Your task to perform on an android device: turn notification dots off Image 0: 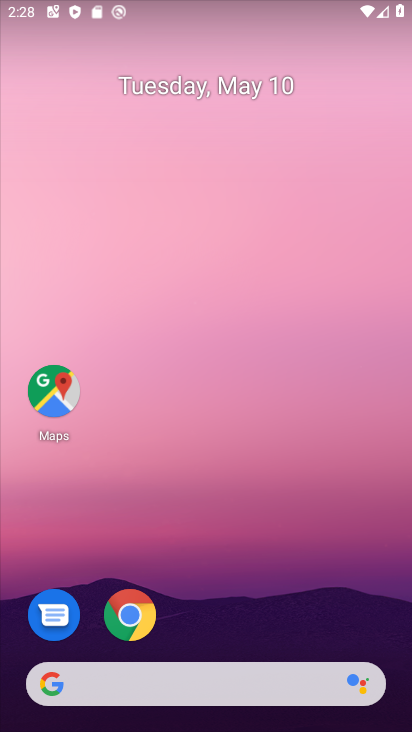
Step 0: drag from (211, 608) to (215, 82)
Your task to perform on an android device: turn notification dots off Image 1: 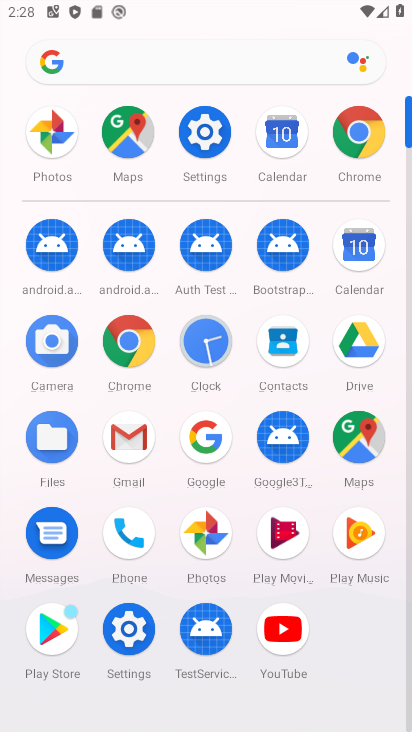
Step 1: click (195, 125)
Your task to perform on an android device: turn notification dots off Image 2: 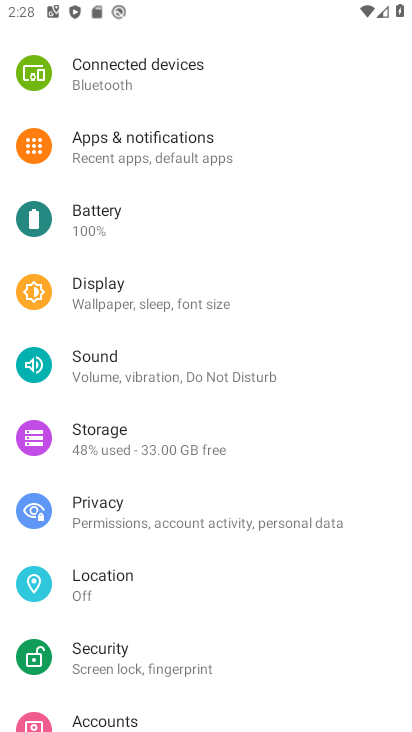
Step 2: click (153, 140)
Your task to perform on an android device: turn notification dots off Image 3: 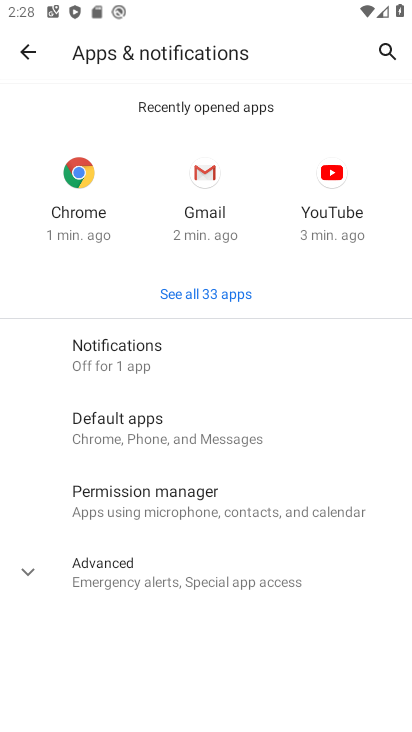
Step 3: click (118, 354)
Your task to perform on an android device: turn notification dots off Image 4: 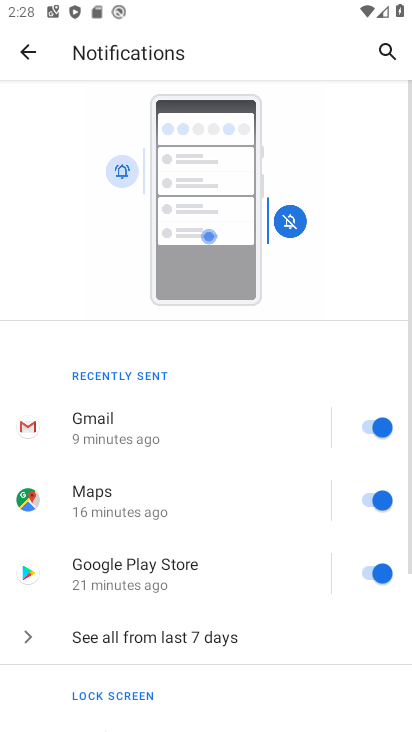
Step 4: drag from (272, 640) to (285, 157)
Your task to perform on an android device: turn notification dots off Image 5: 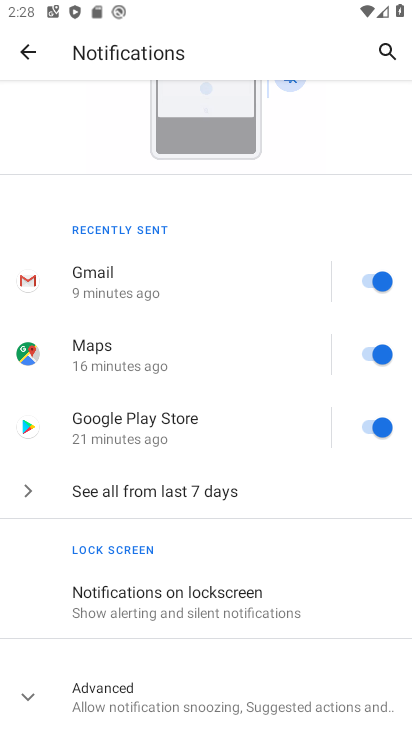
Step 5: click (73, 688)
Your task to perform on an android device: turn notification dots off Image 6: 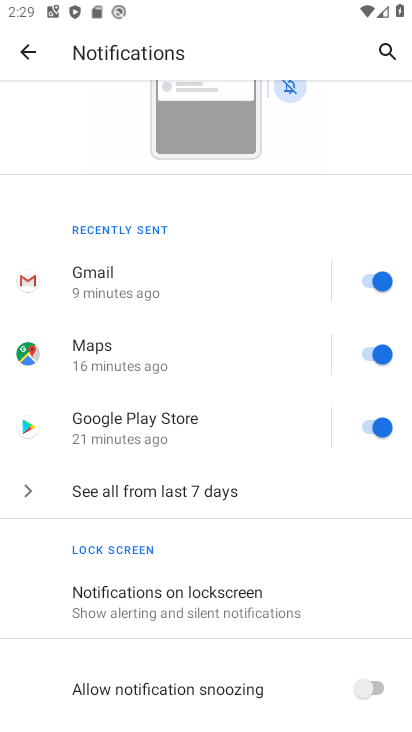
Step 6: drag from (216, 638) to (264, 202)
Your task to perform on an android device: turn notification dots off Image 7: 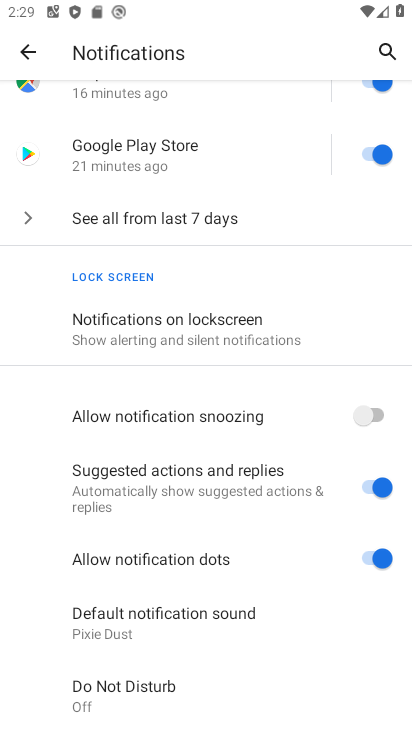
Step 7: click (377, 554)
Your task to perform on an android device: turn notification dots off Image 8: 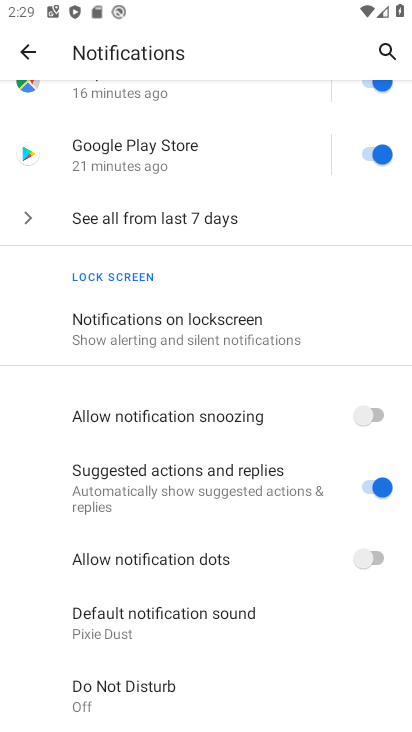
Step 8: task complete